Your task to perform on an android device: allow cookies in the chrome app Image 0: 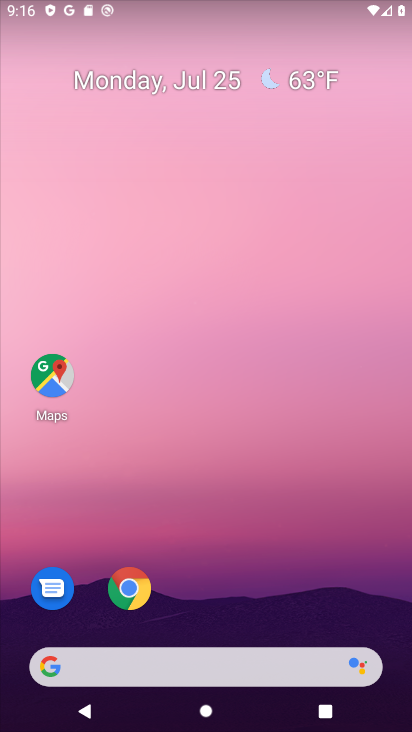
Step 0: drag from (275, 563) to (286, 121)
Your task to perform on an android device: allow cookies in the chrome app Image 1: 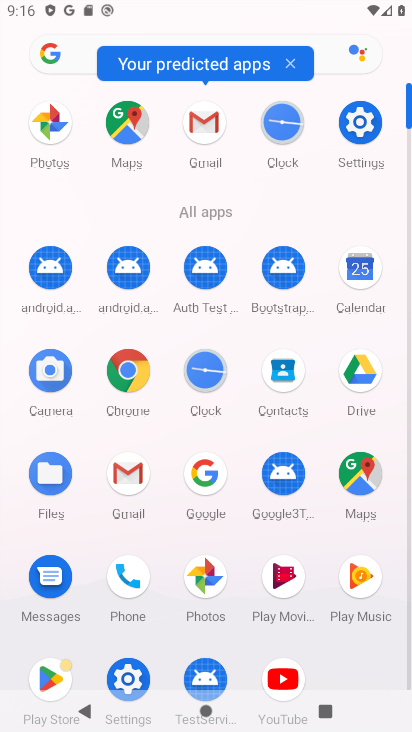
Step 1: click (133, 377)
Your task to perform on an android device: allow cookies in the chrome app Image 2: 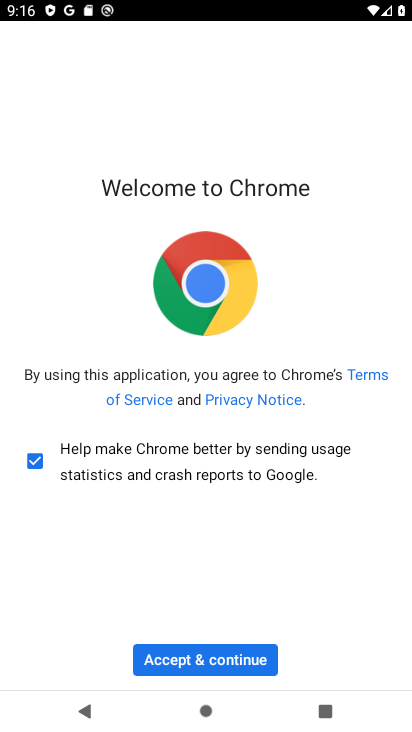
Step 2: click (226, 659)
Your task to perform on an android device: allow cookies in the chrome app Image 3: 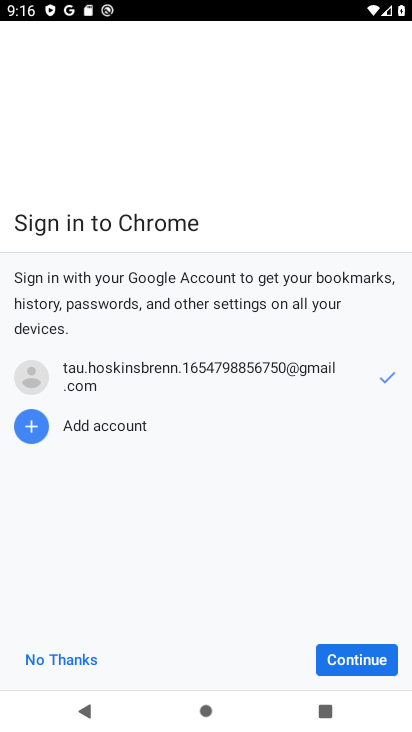
Step 3: click (338, 657)
Your task to perform on an android device: allow cookies in the chrome app Image 4: 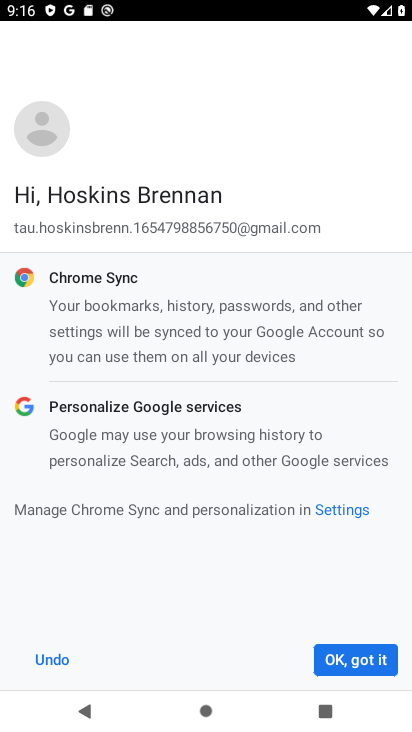
Step 4: click (338, 657)
Your task to perform on an android device: allow cookies in the chrome app Image 5: 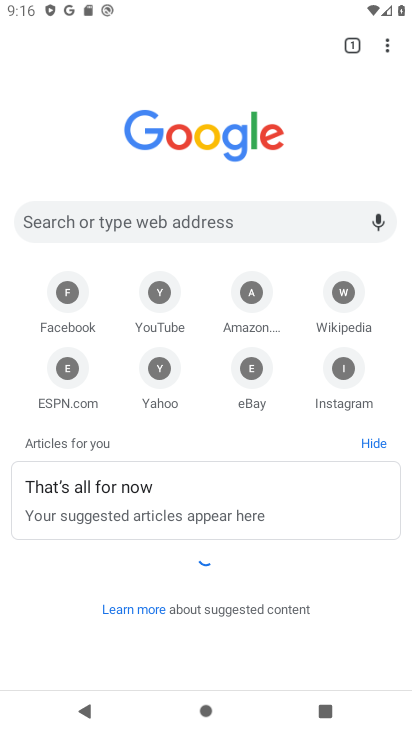
Step 5: drag from (390, 40) to (217, 383)
Your task to perform on an android device: allow cookies in the chrome app Image 6: 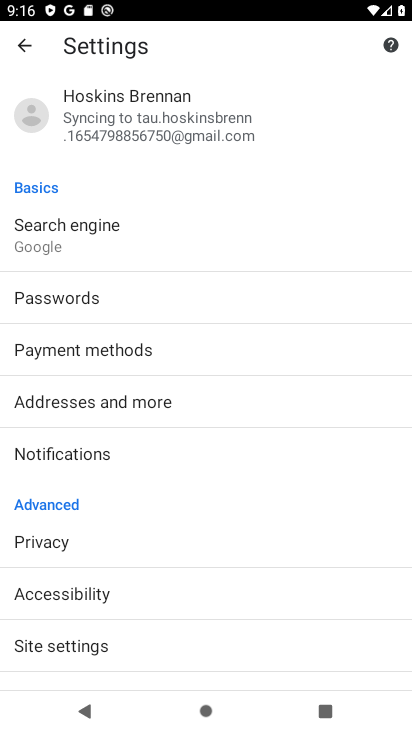
Step 6: click (45, 641)
Your task to perform on an android device: allow cookies in the chrome app Image 7: 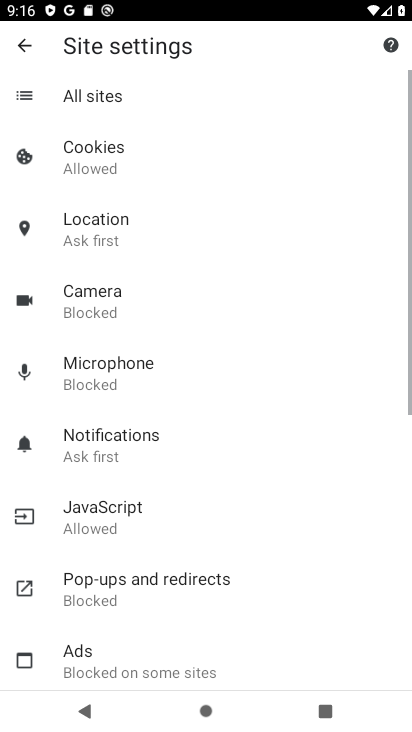
Step 7: click (84, 159)
Your task to perform on an android device: allow cookies in the chrome app Image 8: 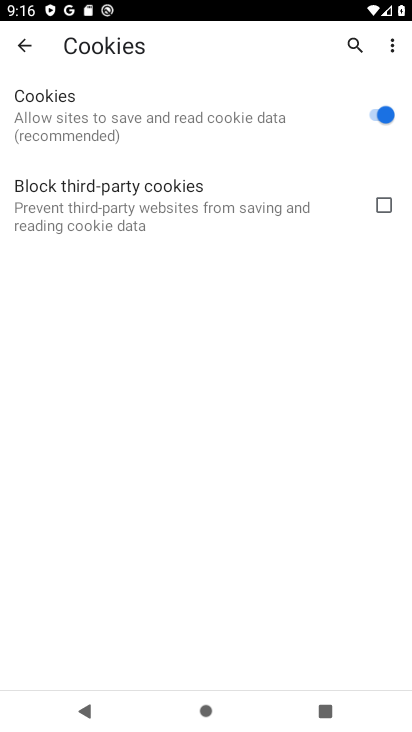
Step 8: task complete